Your task to perform on an android device: Open calendar and show me the third week of next month Image 0: 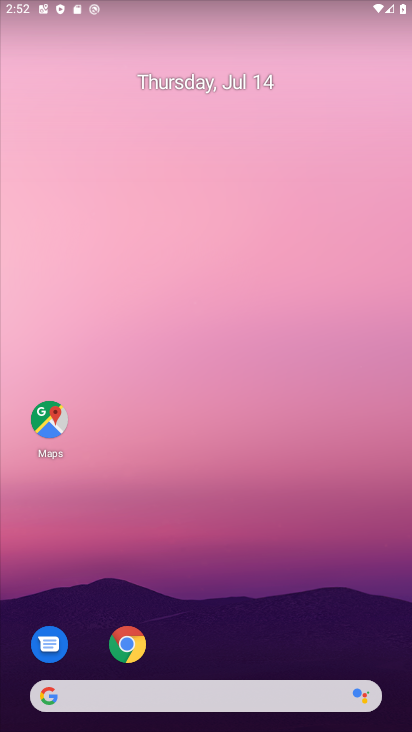
Step 0: drag from (215, 633) to (247, 149)
Your task to perform on an android device: Open calendar and show me the third week of next month Image 1: 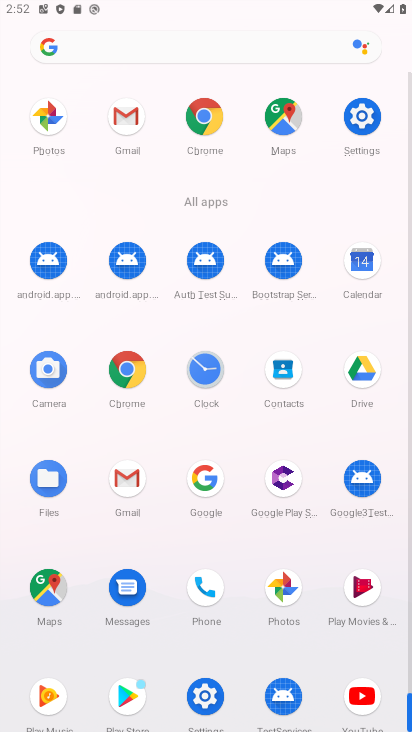
Step 1: click (351, 261)
Your task to perform on an android device: Open calendar and show me the third week of next month Image 2: 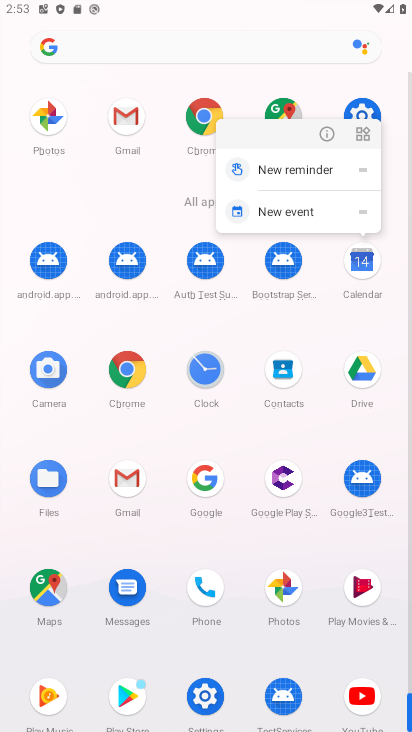
Step 2: click (325, 131)
Your task to perform on an android device: Open calendar and show me the third week of next month Image 3: 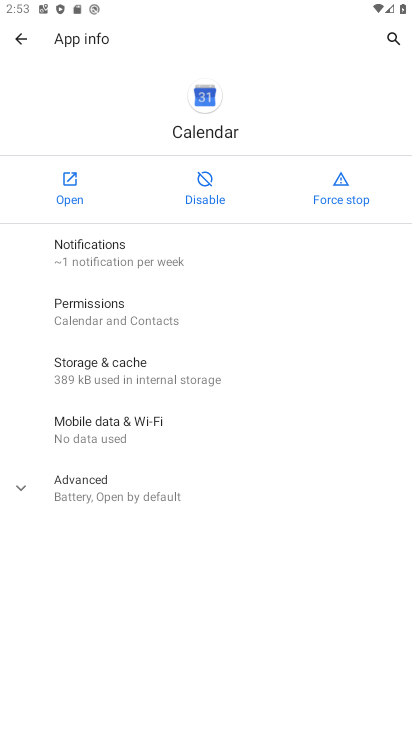
Step 3: click (59, 188)
Your task to perform on an android device: Open calendar and show me the third week of next month Image 4: 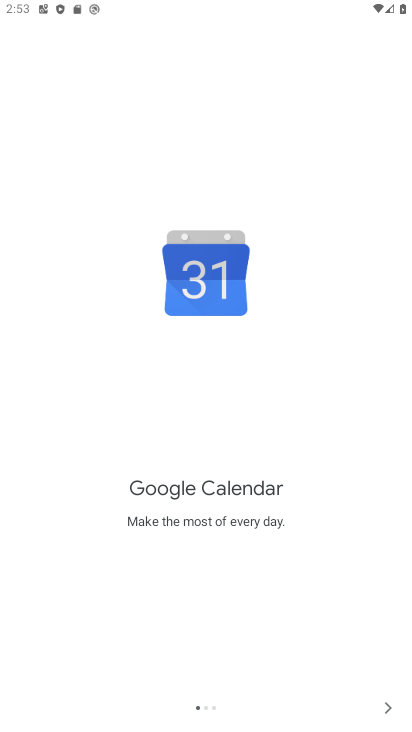
Step 4: drag from (283, 487) to (308, 285)
Your task to perform on an android device: Open calendar and show me the third week of next month Image 5: 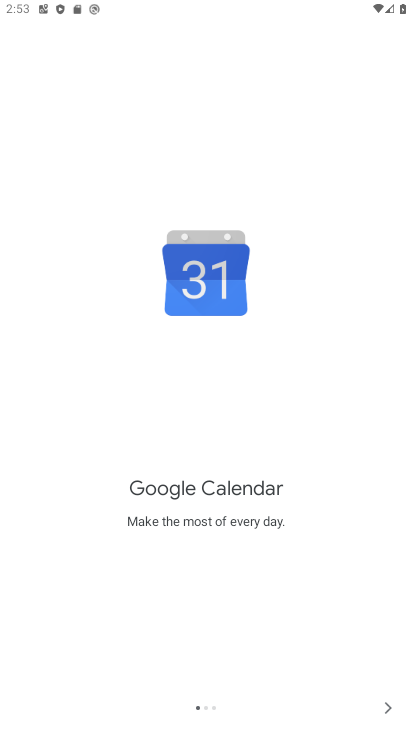
Step 5: click (368, 697)
Your task to perform on an android device: Open calendar and show me the third week of next month Image 6: 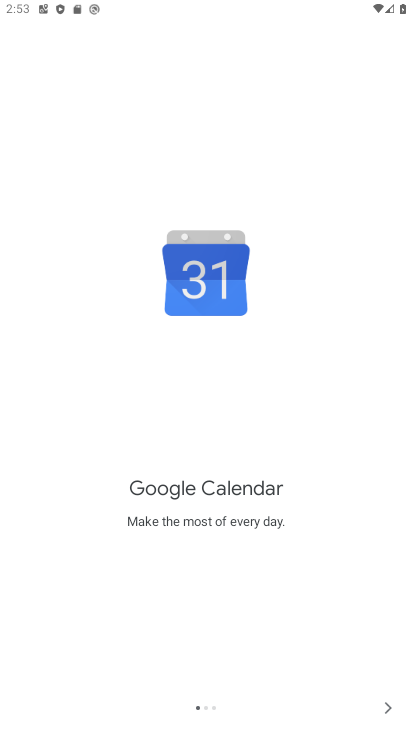
Step 6: click (387, 700)
Your task to perform on an android device: Open calendar and show me the third week of next month Image 7: 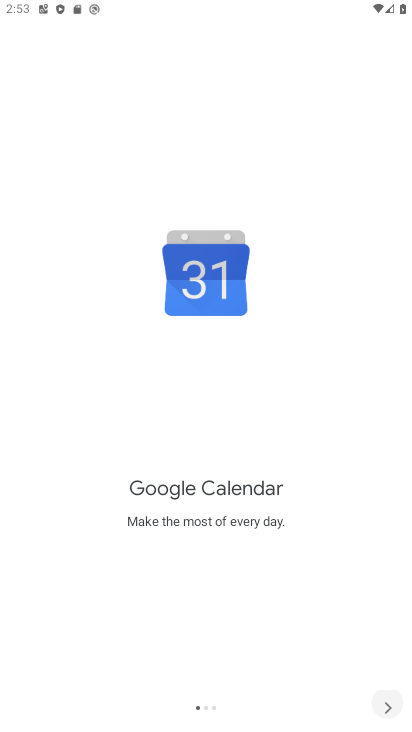
Step 7: click (388, 699)
Your task to perform on an android device: Open calendar and show me the third week of next month Image 8: 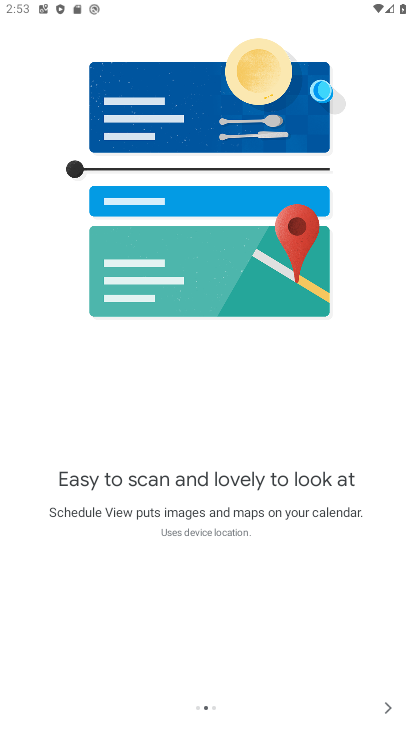
Step 8: click (388, 699)
Your task to perform on an android device: Open calendar and show me the third week of next month Image 9: 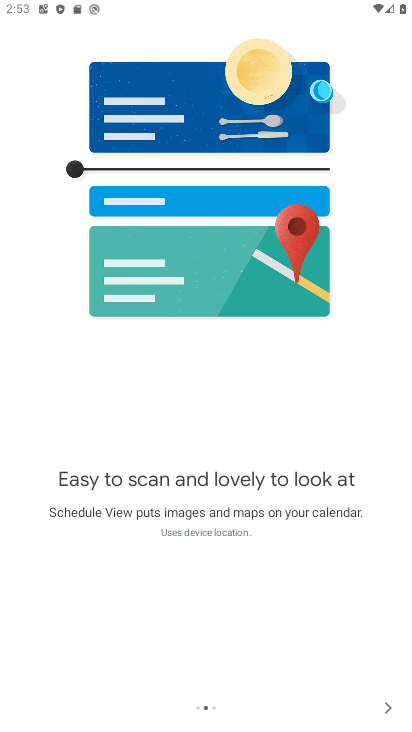
Step 9: click (388, 699)
Your task to perform on an android device: Open calendar and show me the third week of next month Image 10: 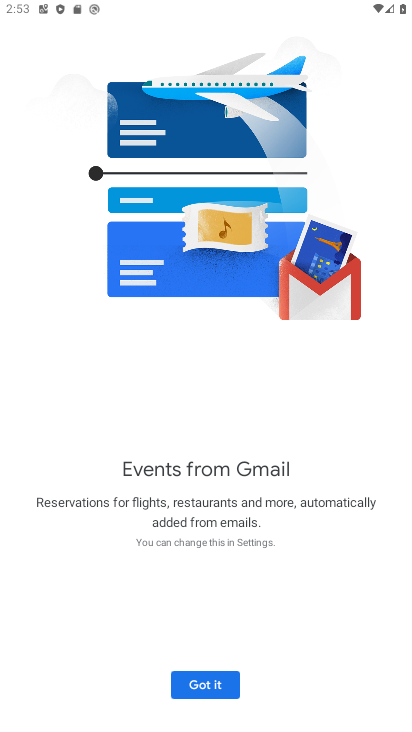
Step 10: click (387, 699)
Your task to perform on an android device: Open calendar and show me the third week of next month Image 11: 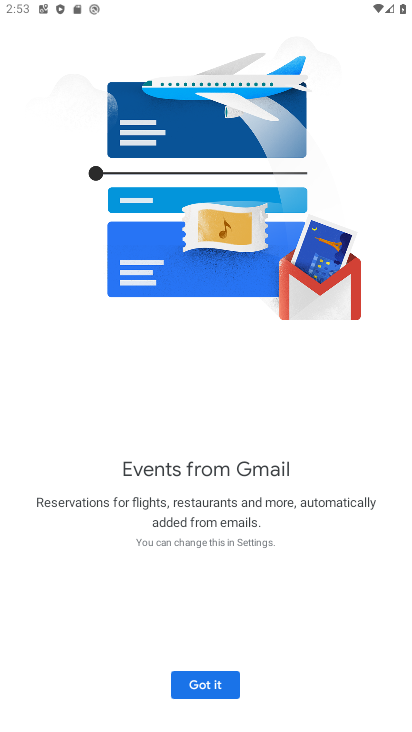
Step 11: click (211, 692)
Your task to perform on an android device: Open calendar and show me the third week of next month Image 12: 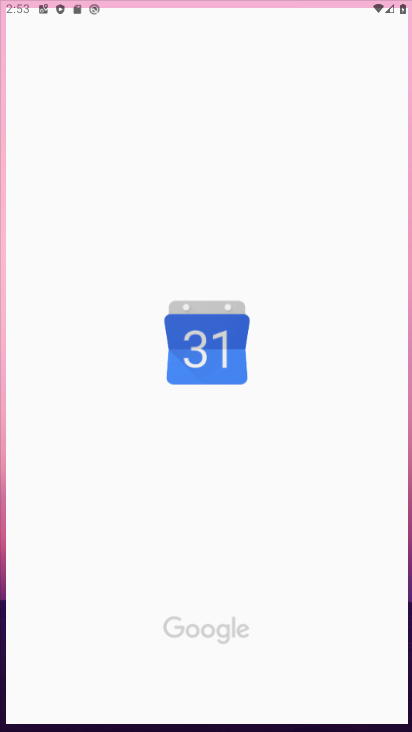
Step 12: drag from (187, 664) to (196, 296)
Your task to perform on an android device: Open calendar and show me the third week of next month Image 13: 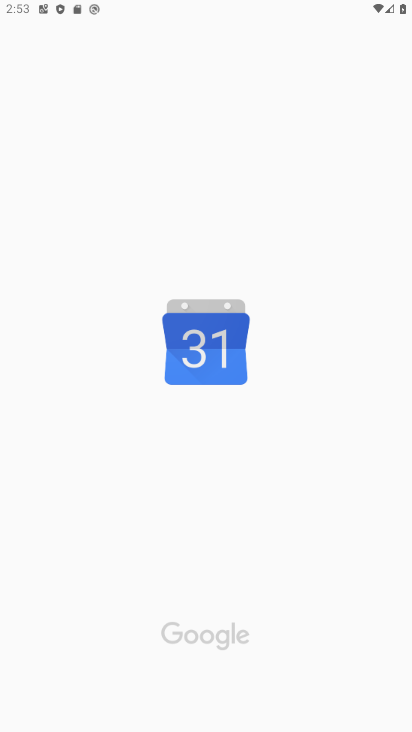
Step 13: click (248, 242)
Your task to perform on an android device: Open calendar and show me the third week of next month Image 14: 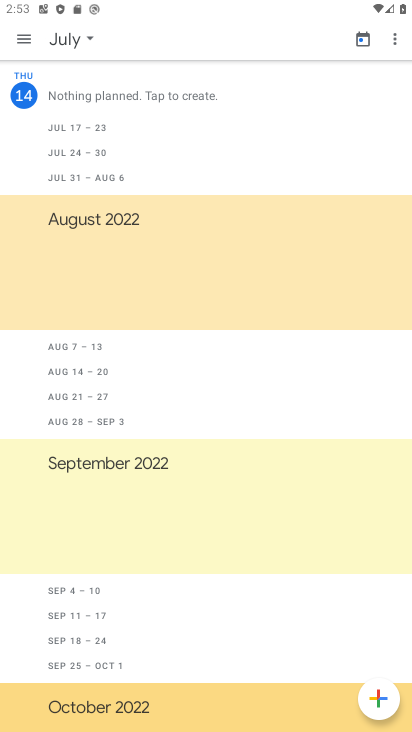
Step 14: drag from (270, 368) to (274, 210)
Your task to perform on an android device: Open calendar and show me the third week of next month Image 15: 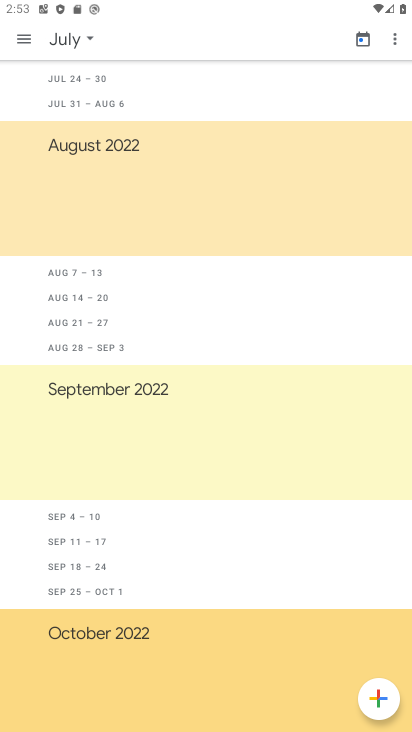
Step 15: click (365, 40)
Your task to perform on an android device: Open calendar and show me the third week of next month Image 16: 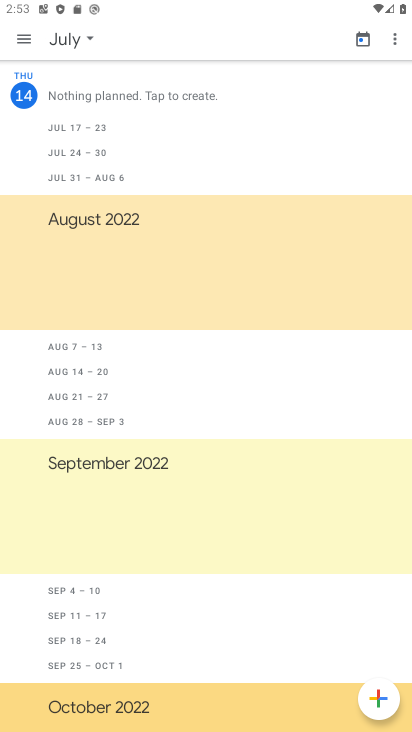
Step 16: click (62, 41)
Your task to perform on an android device: Open calendar and show me the third week of next month Image 17: 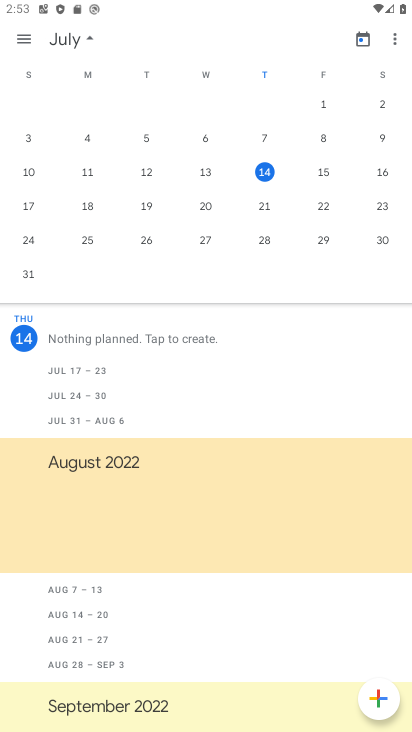
Step 17: drag from (336, 236) to (8, 205)
Your task to perform on an android device: Open calendar and show me the third week of next month Image 18: 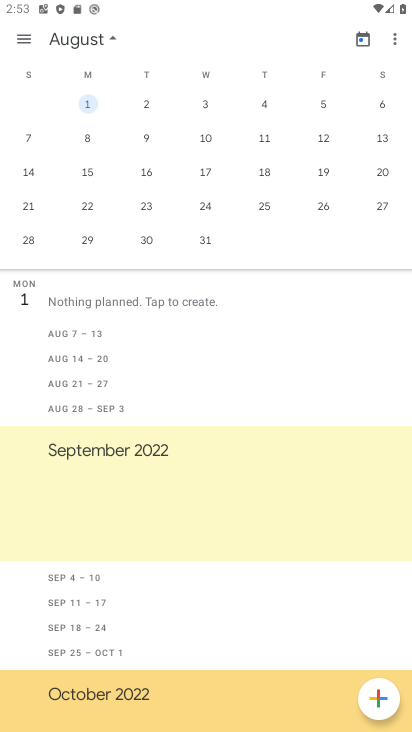
Step 18: click (203, 169)
Your task to perform on an android device: Open calendar and show me the third week of next month Image 19: 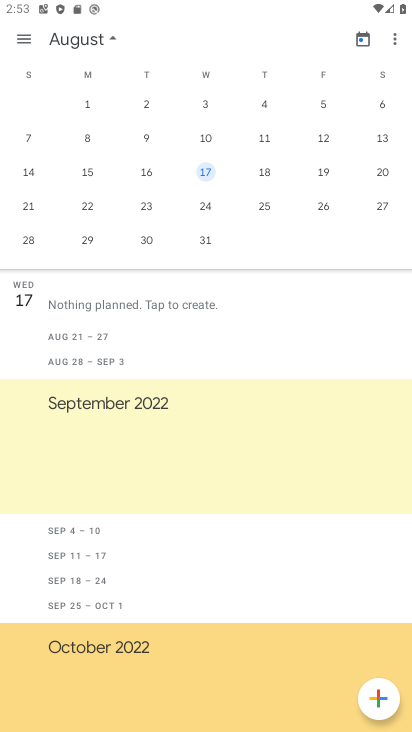
Step 19: task complete